Your task to perform on an android device: Go to sound settings Image 0: 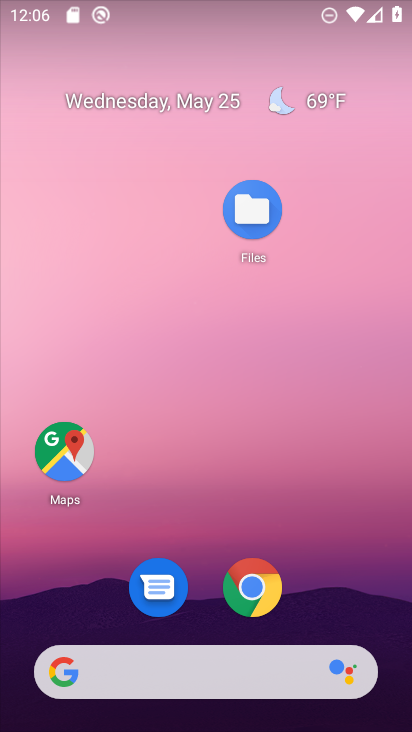
Step 0: drag from (317, 604) to (132, 271)
Your task to perform on an android device: Go to sound settings Image 1: 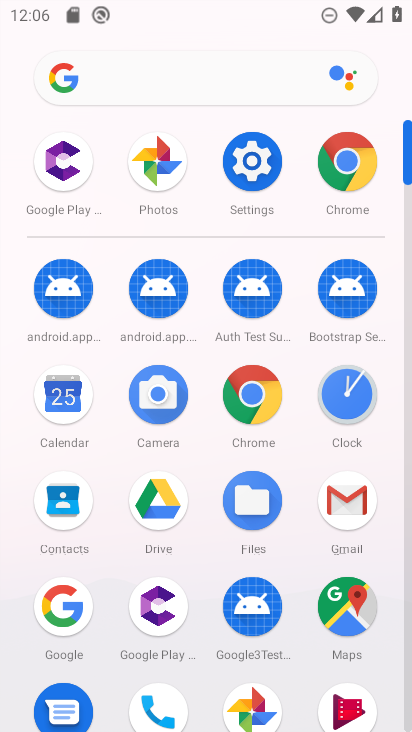
Step 1: click (266, 171)
Your task to perform on an android device: Go to sound settings Image 2: 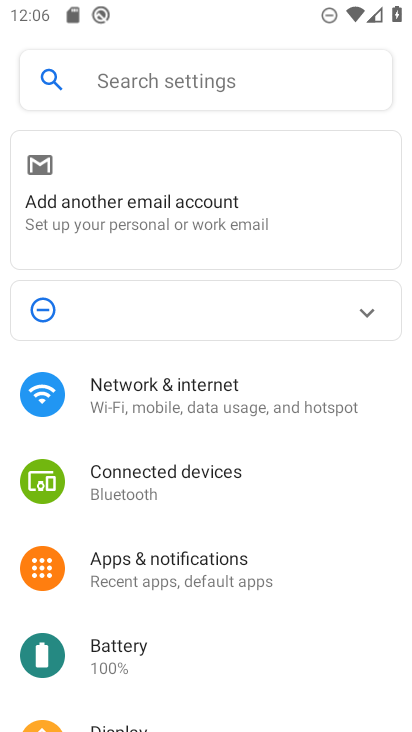
Step 2: drag from (272, 696) to (244, 277)
Your task to perform on an android device: Go to sound settings Image 3: 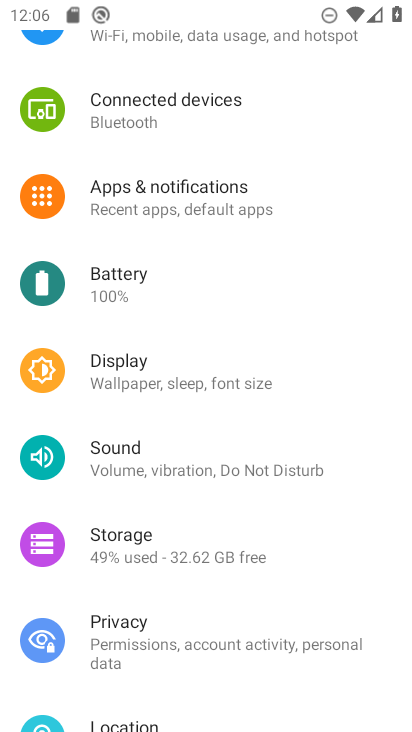
Step 3: click (147, 467)
Your task to perform on an android device: Go to sound settings Image 4: 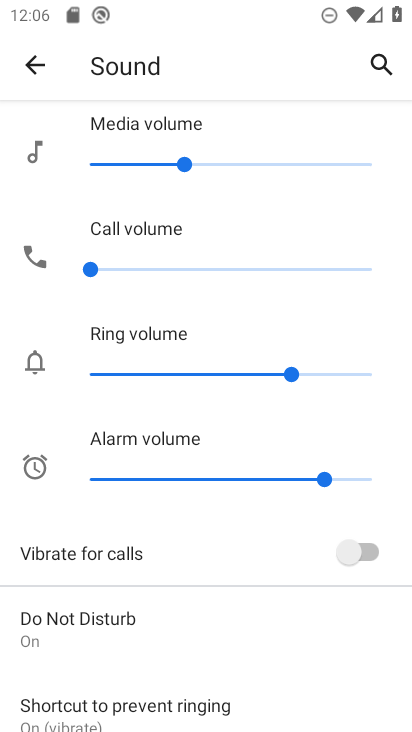
Step 4: drag from (184, 655) to (203, 347)
Your task to perform on an android device: Go to sound settings Image 5: 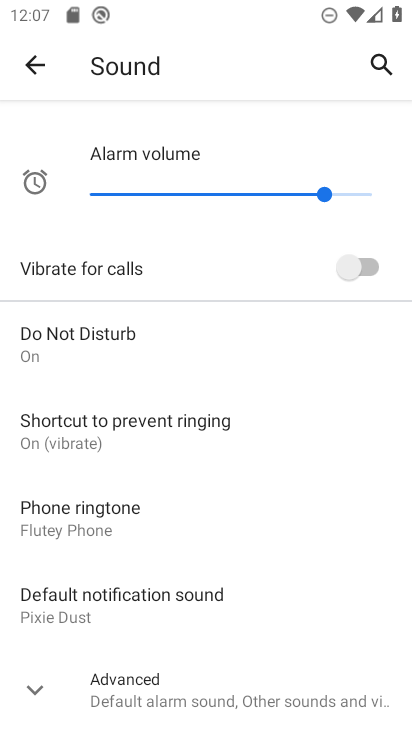
Step 5: click (123, 693)
Your task to perform on an android device: Go to sound settings Image 6: 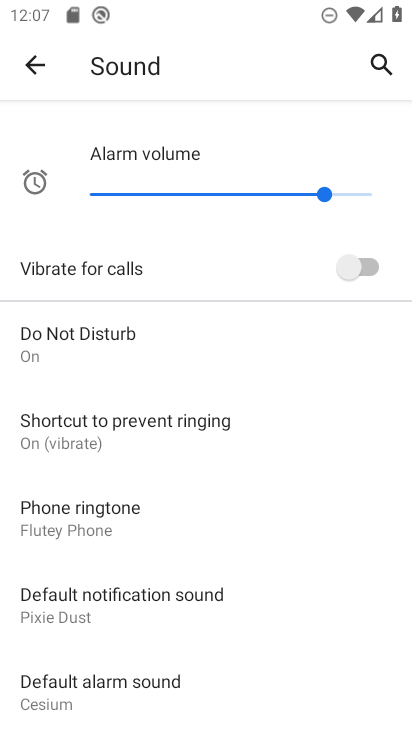
Step 6: task complete